Your task to perform on an android device: change the clock style Image 0: 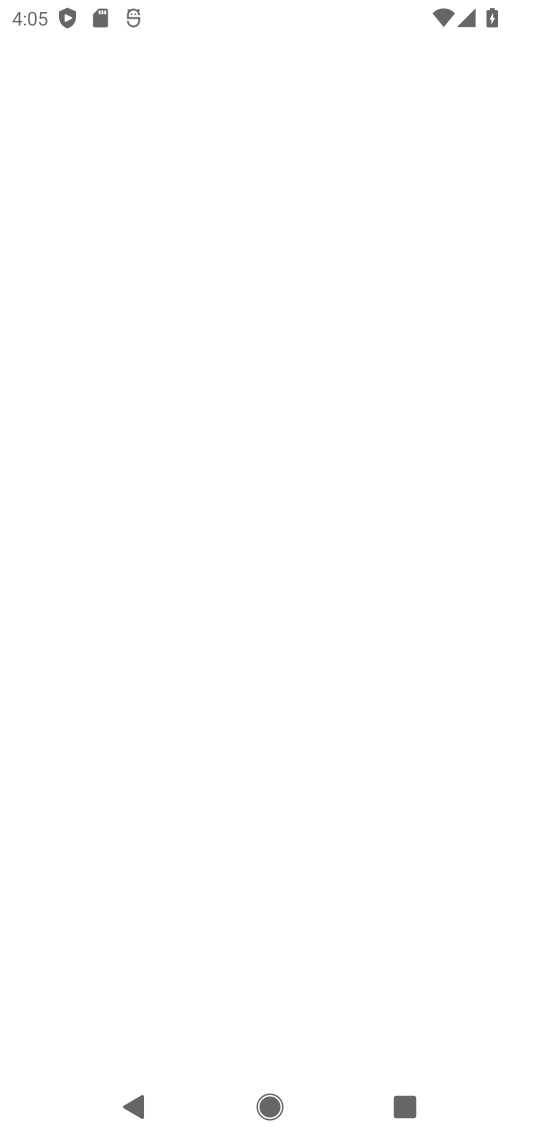
Step 0: press home button
Your task to perform on an android device: change the clock style Image 1: 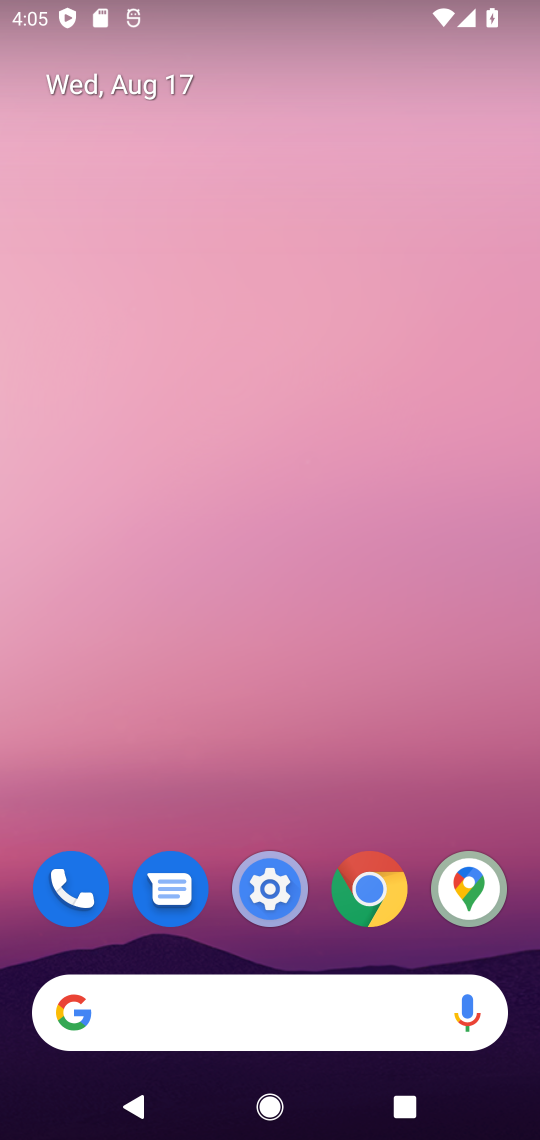
Step 1: drag from (309, 794) to (249, 6)
Your task to perform on an android device: change the clock style Image 2: 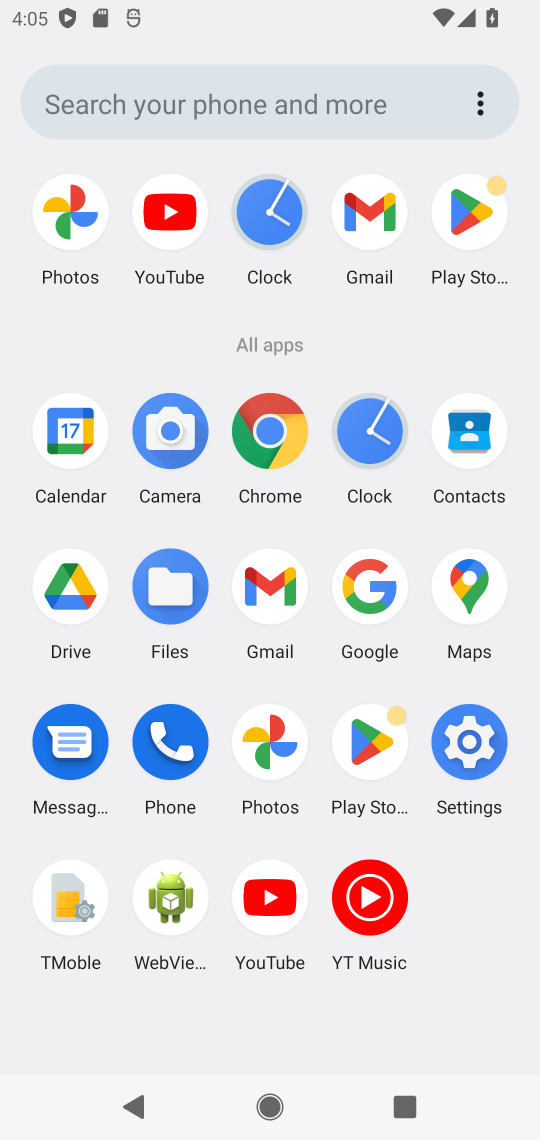
Step 2: click (379, 438)
Your task to perform on an android device: change the clock style Image 3: 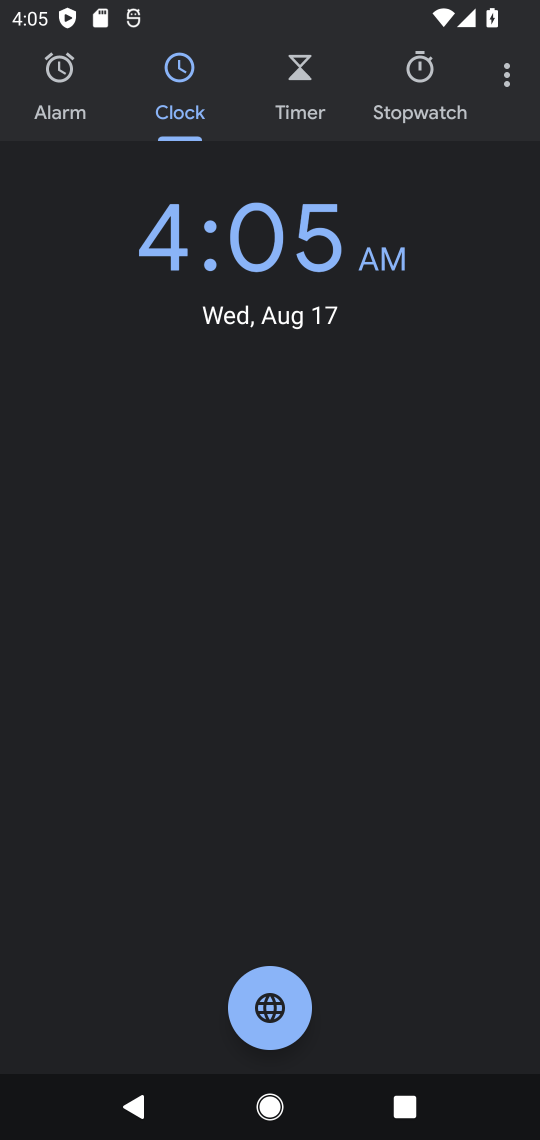
Step 3: click (506, 76)
Your task to perform on an android device: change the clock style Image 4: 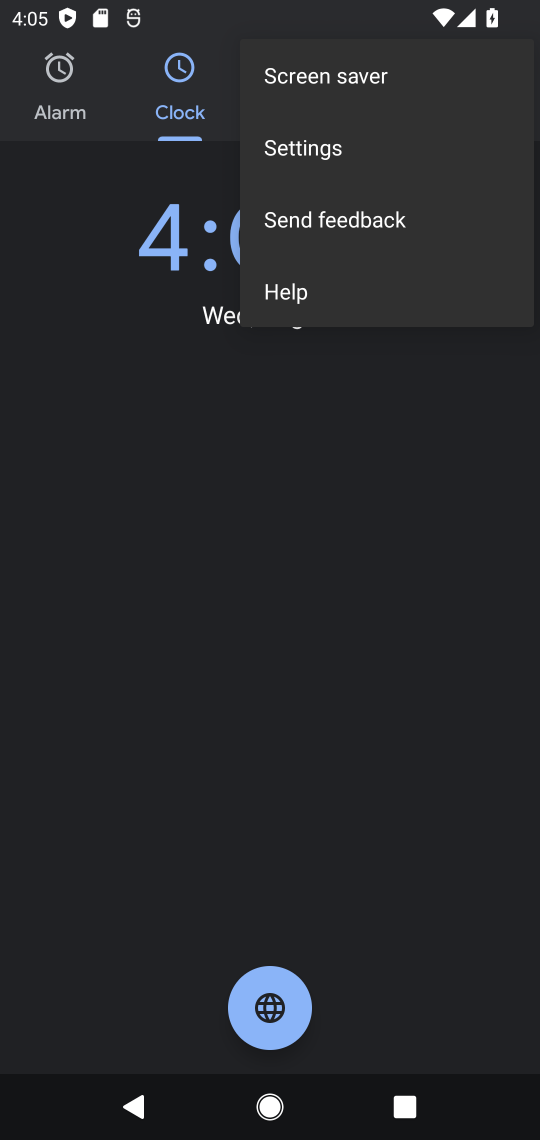
Step 4: click (303, 151)
Your task to perform on an android device: change the clock style Image 5: 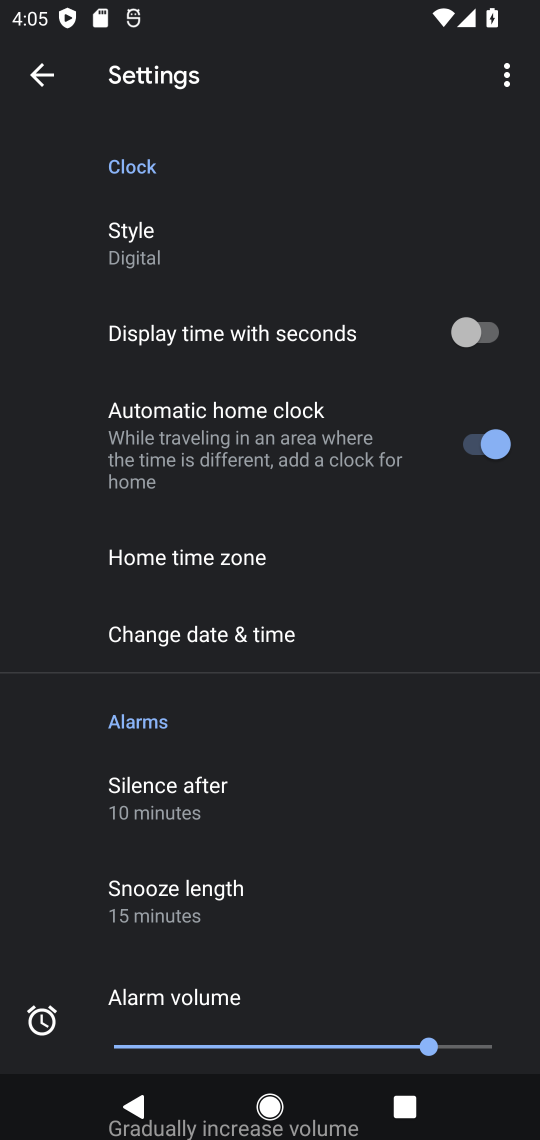
Step 5: click (142, 227)
Your task to perform on an android device: change the clock style Image 6: 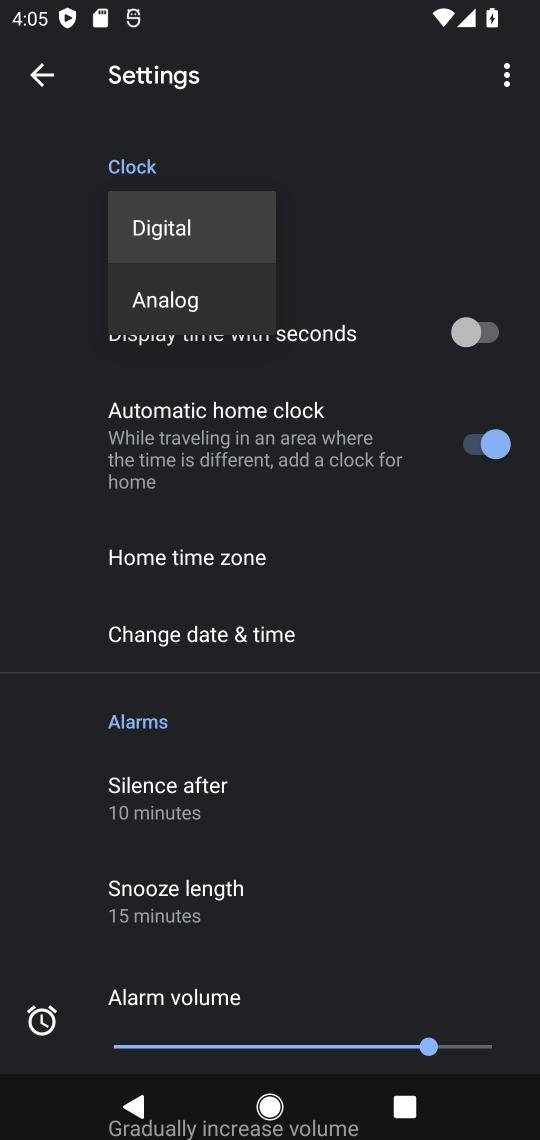
Step 6: click (172, 302)
Your task to perform on an android device: change the clock style Image 7: 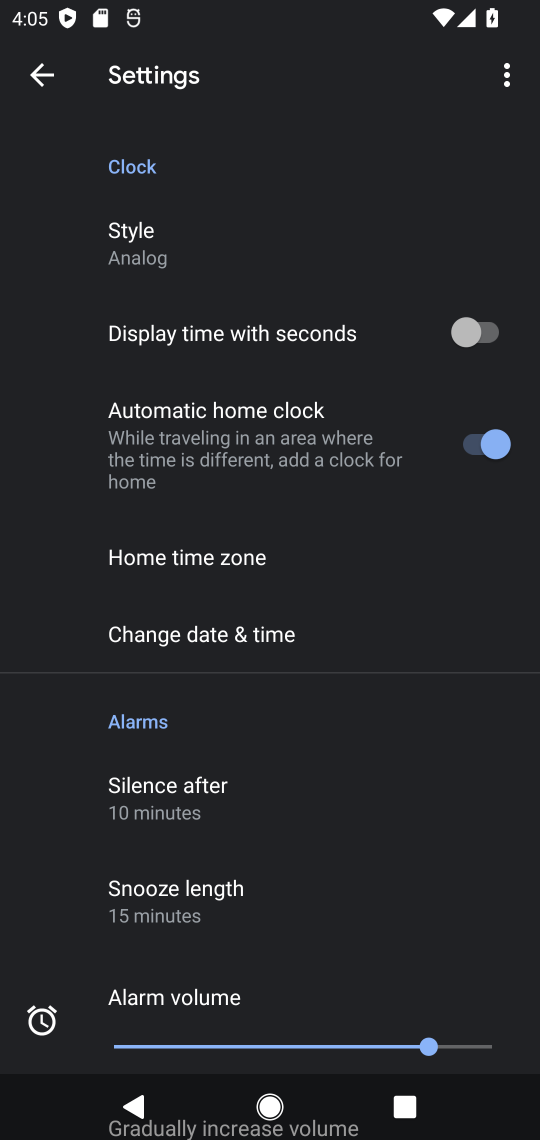
Step 7: task complete